Your task to perform on an android device: Go to accessibility settings Image 0: 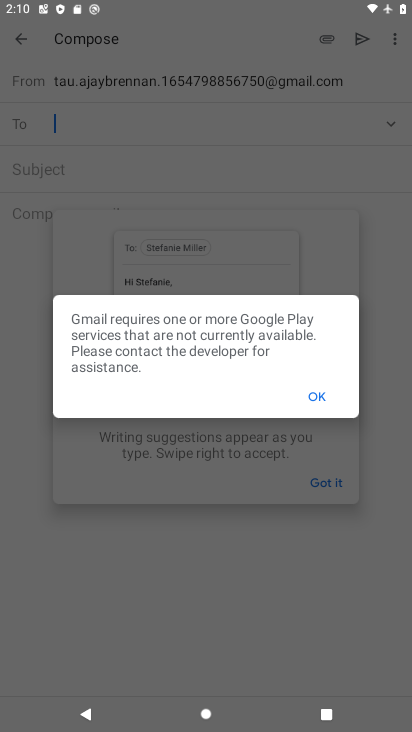
Step 0: press home button
Your task to perform on an android device: Go to accessibility settings Image 1: 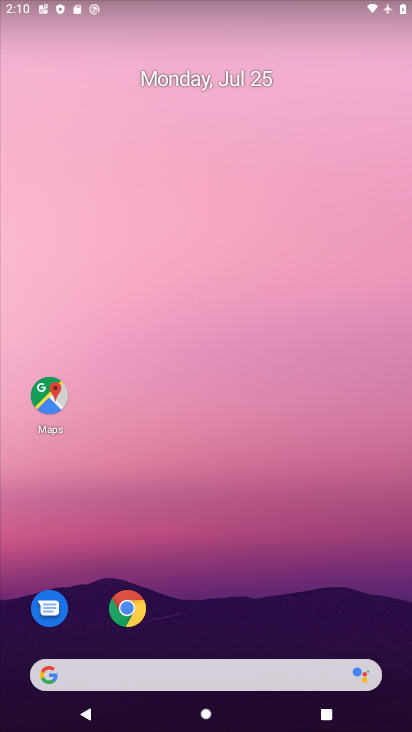
Step 1: drag from (267, 581) to (222, 0)
Your task to perform on an android device: Go to accessibility settings Image 2: 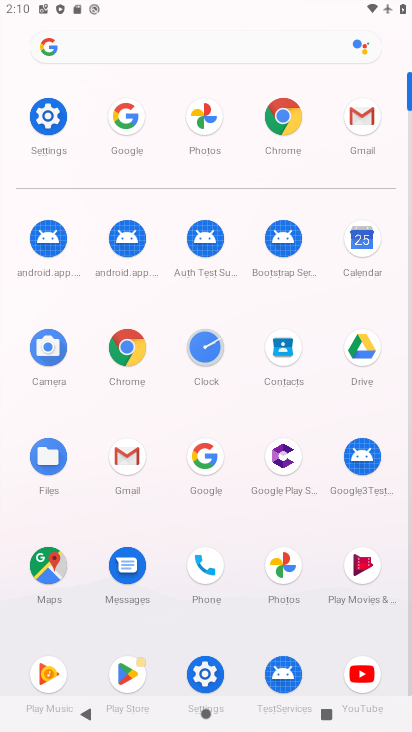
Step 2: click (41, 188)
Your task to perform on an android device: Go to accessibility settings Image 3: 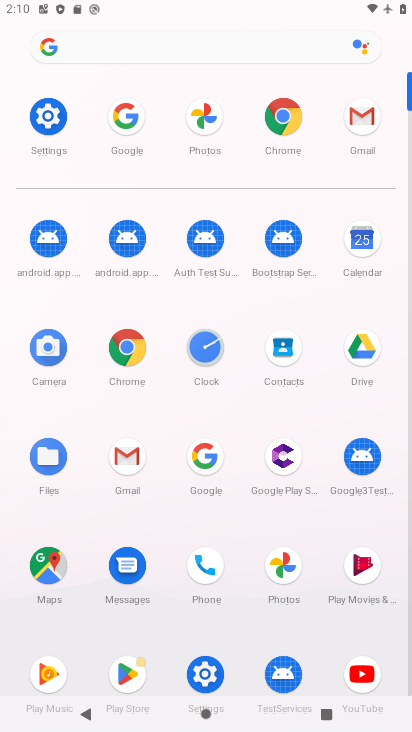
Step 3: click (49, 136)
Your task to perform on an android device: Go to accessibility settings Image 4: 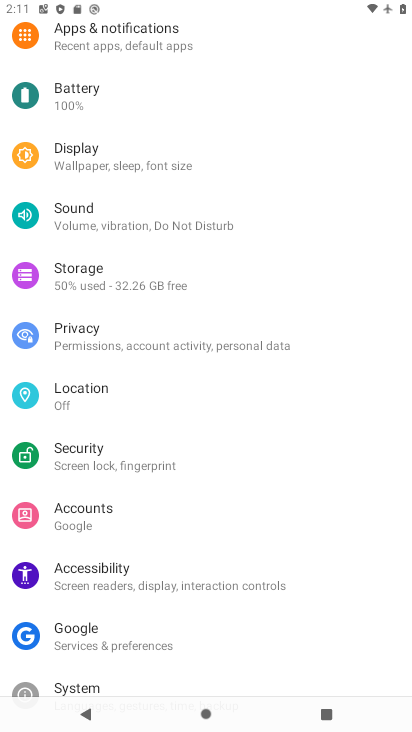
Step 4: click (164, 587)
Your task to perform on an android device: Go to accessibility settings Image 5: 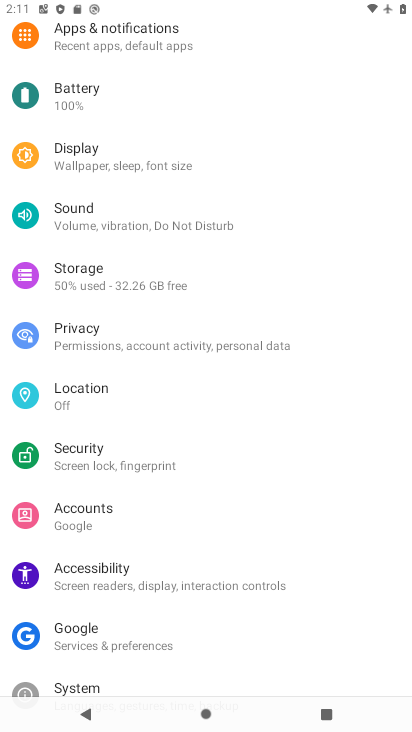
Step 5: click (158, 575)
Your task to perform on an android device: Go to accessibility settings Image 6: 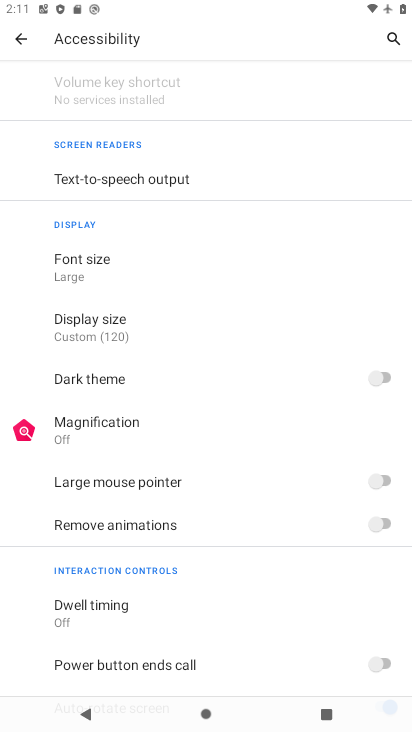
Step 6: task complete